Your task to perform on an android device: change keyboard looks Image 0: 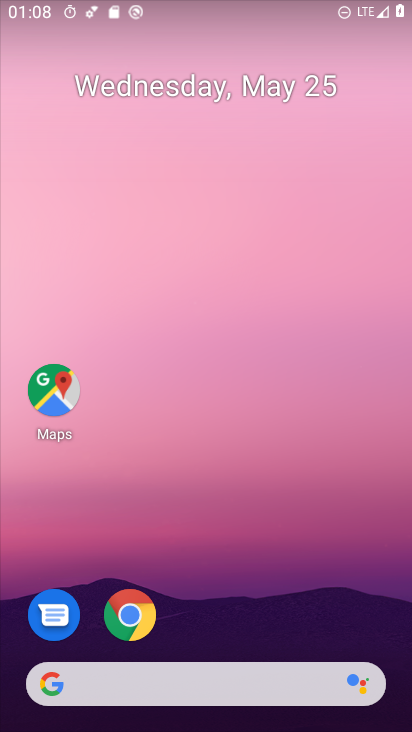
Step 0: press home button
Your task to perform on an android device: change keyboard looks Image 1: 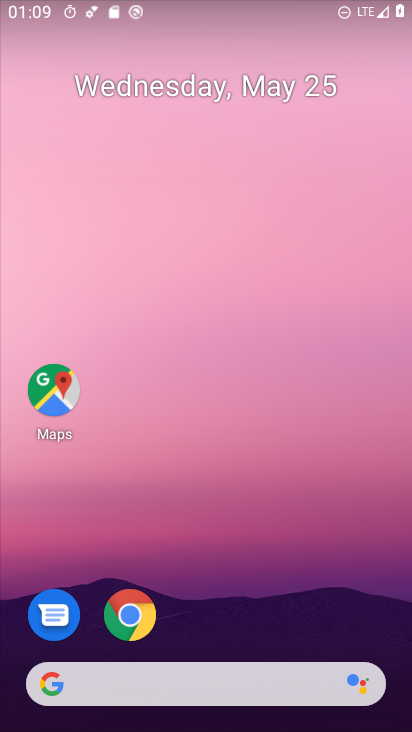
Step 1: drag from (187, 723) to (233, 69)
Your task to perform on an android device: change keyboard looks Image 2: 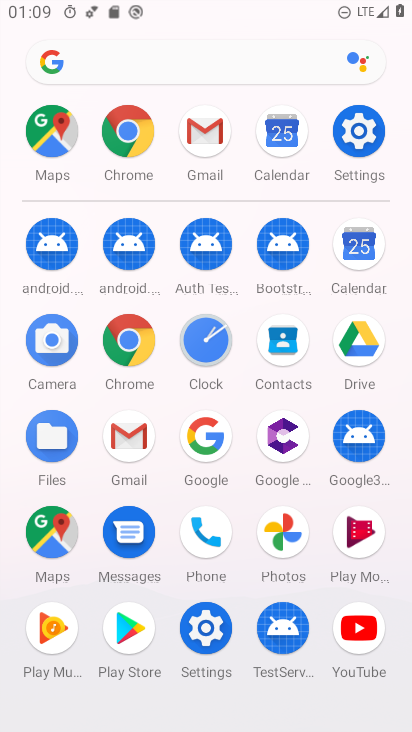
Step 2: click (349, 130)
Your task to perform on an android device: change keyboard looks Image 3: 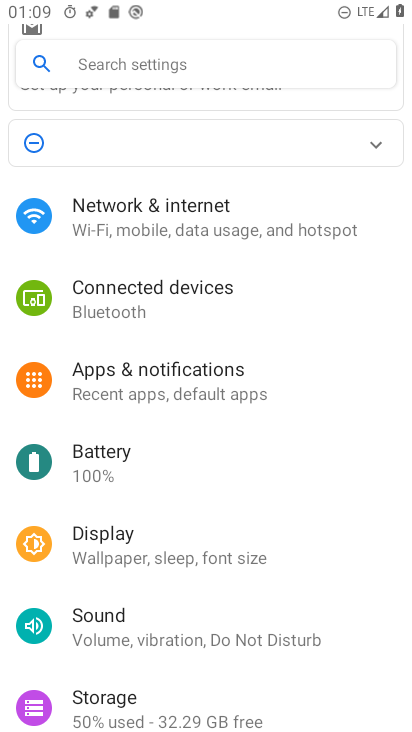
Step 3: click (132, 67)
Your task to perform on an android device: change keyboard looks Image 4: 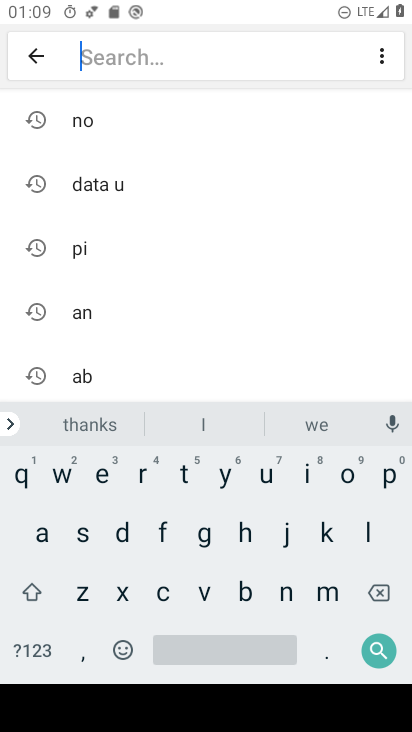
Step 4: click (332, 530)
Your task to perform on an android device: change keyboard looks Image 5: 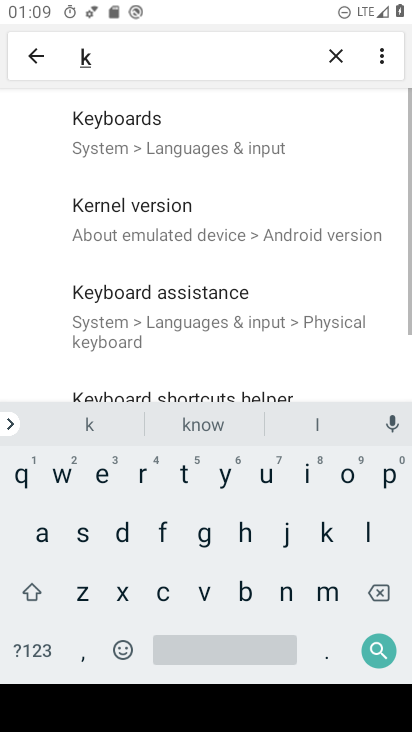
Step 5: click (103, 475)
Your task to perform on an android device: change keyboard looks Image 6: 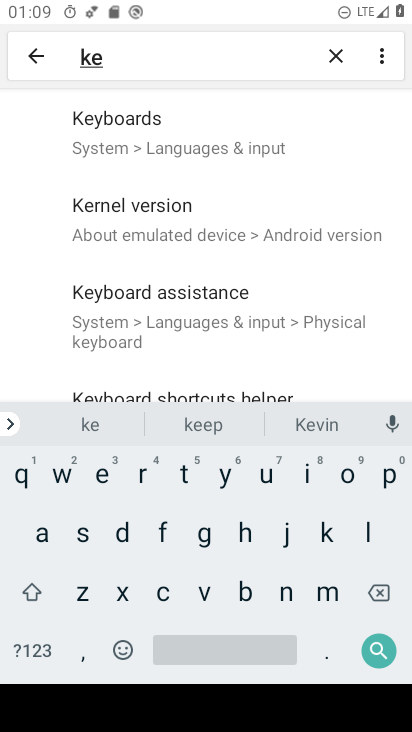
Step 6: click (153, 134)
Your task to perform on an android device: change keyboard looks Image 7: 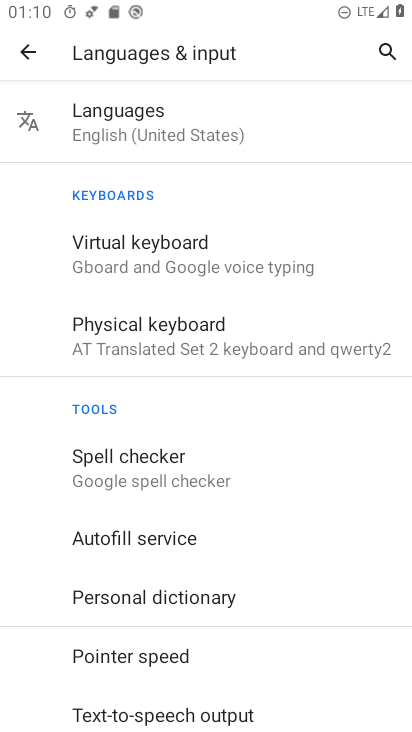
Step 7: click (146, 252)
Your task to perform on an android device: change keyboard looks Image 8: 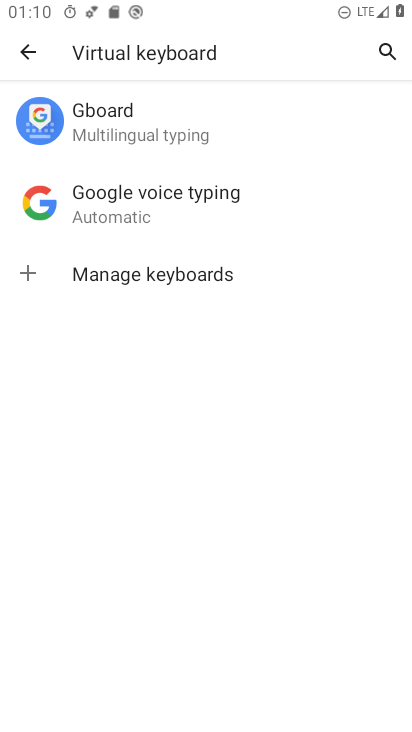
Step 8: click (127, 135)
Your task to perform on an android device: change keyboard looks Image 9: 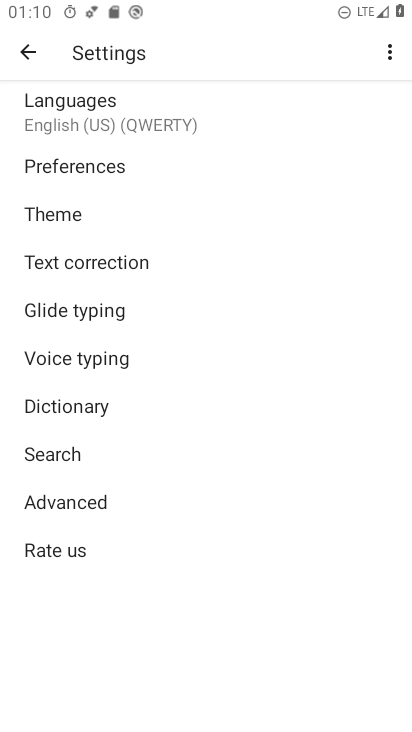
Step 9: click (112, 199)
Your task to perform on an android device: change keyboard looks Image 10: 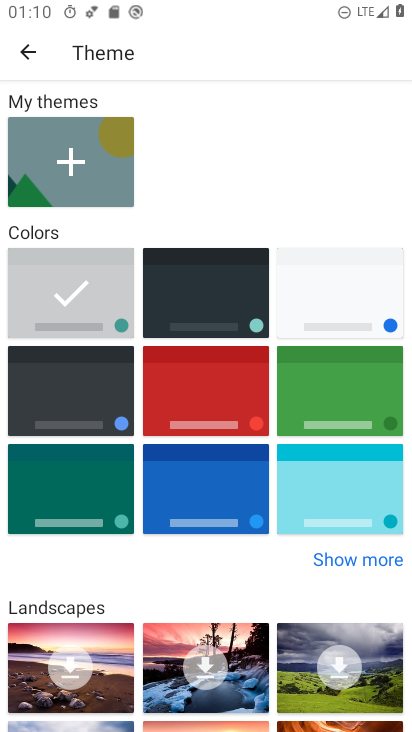
Step 10: click (189, 314)
Your task to perform on an android device: change keyboard looks Image 11: 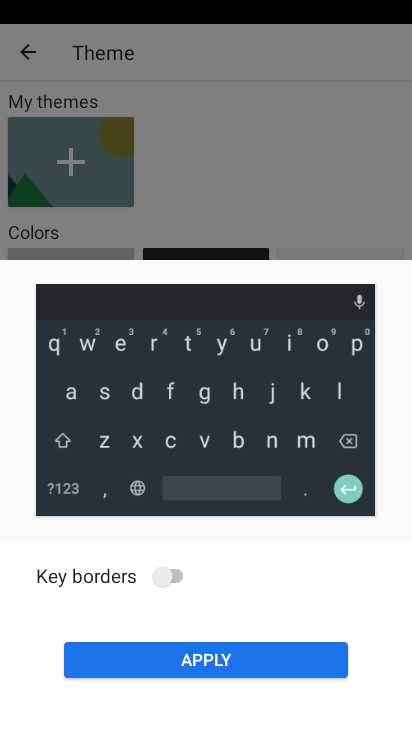
Step 11: click (171, 572)
Your task to perform on an android device: change keyboard looks Image 12: 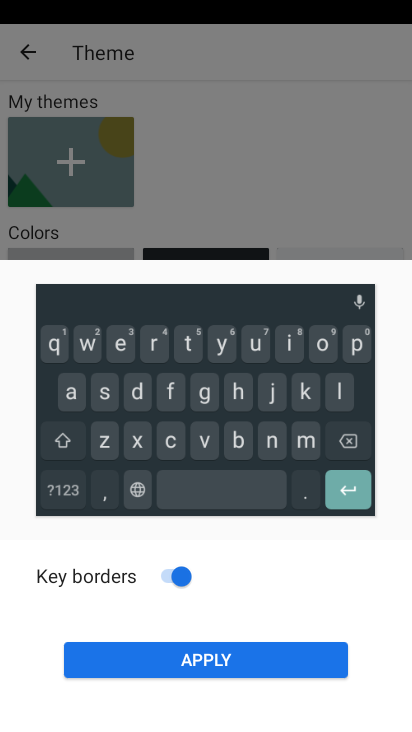
Step 12: click (248, 670)
Your task to perform on an android device: change keyboard looks Image 13: 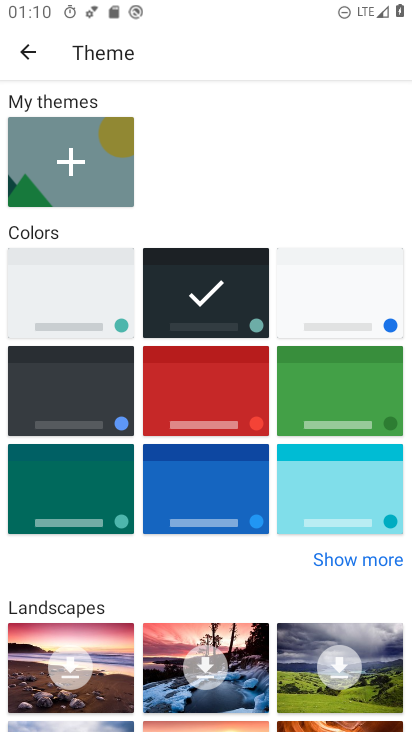
Step 13: task complete